Your task to perform on an android device: Open maps Image 0: 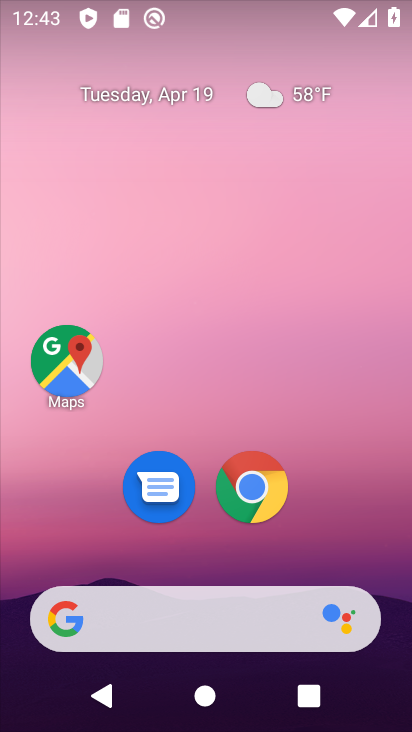
Step 0: click (61, 355)
Your task to perform on an android device: Open maps Image 1: 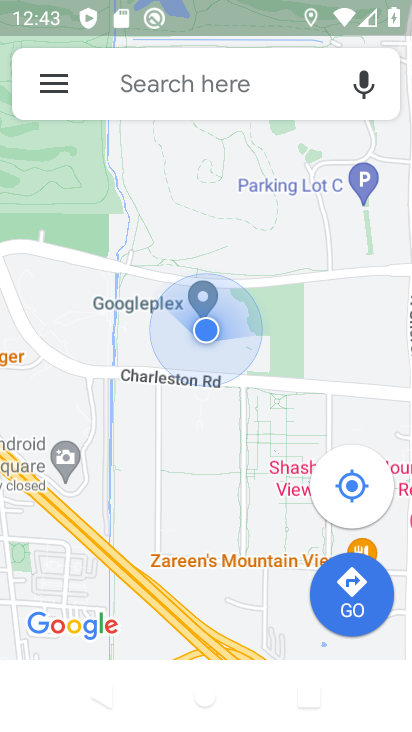
Step 1: task complete